Your task to perform on an android device: turn on showing notifications on the lock screen Image 0: 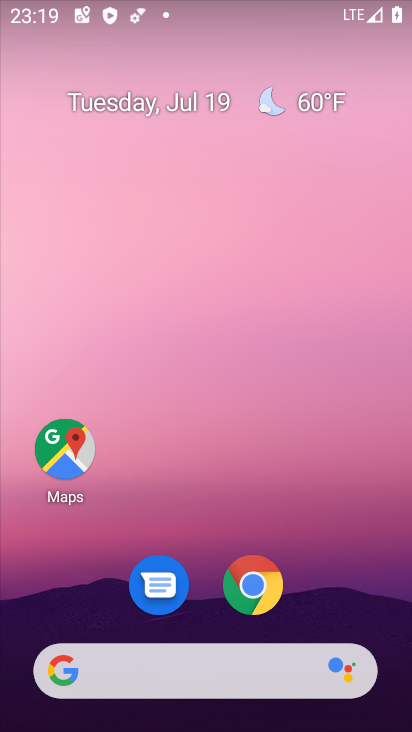
Step 0: drag from (215, 495) to (157, 0)
Your task to perform on an android device: turn on showing notifications on the lock screen Image 1: 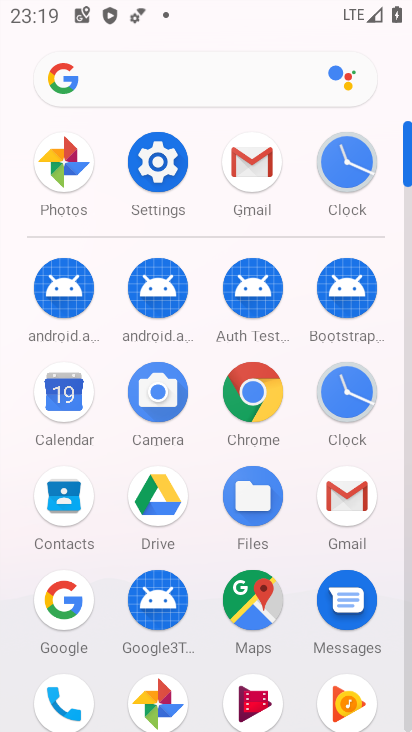
Step 1: click (163, 160)
Your task to perform on an android device: turn on showing notifications on the lock screen Image 2: 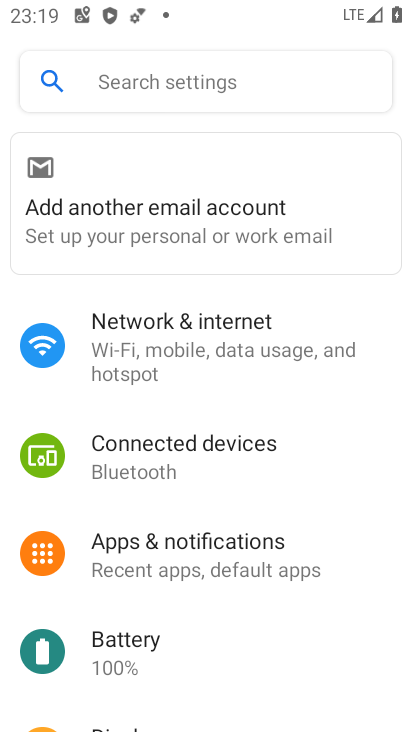
Step 2: click (225, 540)
Your task to perform on an android device: turn on showing notifications on the lock screen Image 3: 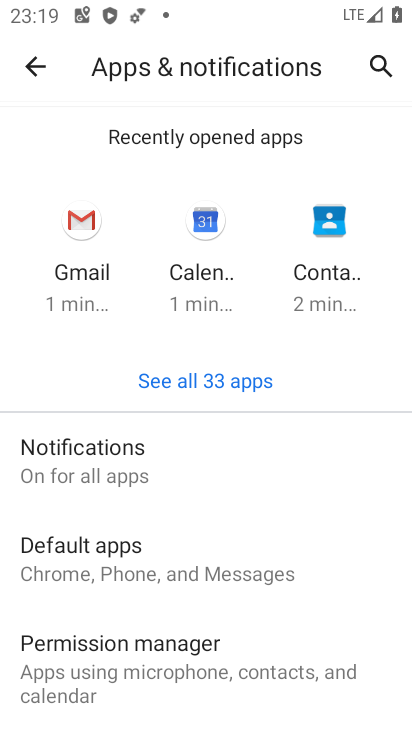
Step 3: drag from (259, 477) to (231, 161)
Your task to perform on an android device: turn on showing notifications on the lock screen Image 4: 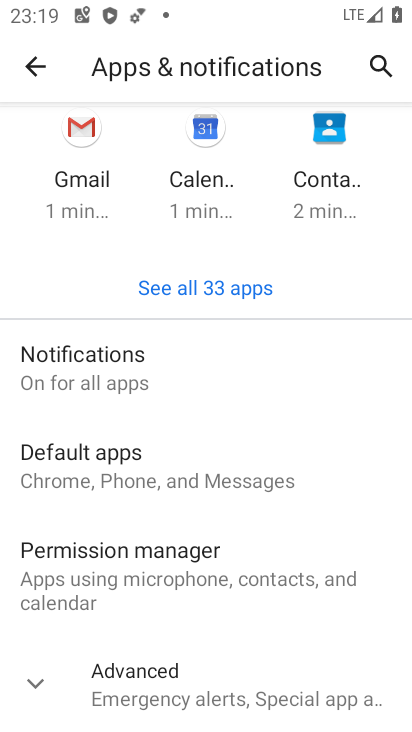
Step 4: click (138, 370)
Your task to perform on an android device: turn on showing notifications on the lock screen Image 5: 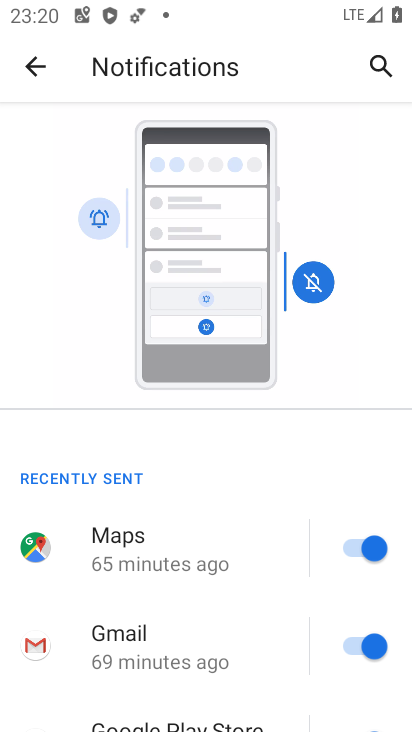
Step 5: drag from (231, 632) to (214, 56)
Your task to perform on an android device: turn on showing notifications on the lock screen Image 6: 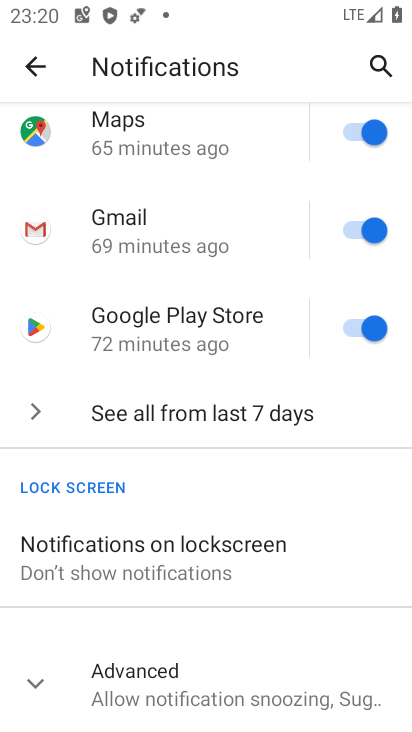
Step 6: click (214, 559)
Your task to perform on an android device: turn on showing notifications on the lock screen Image 7: 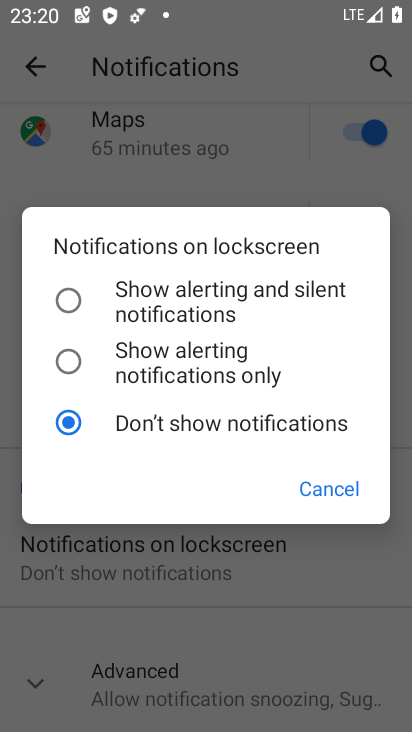
Step 7: click (69, 299)
Your task to perform on an android device: turn on showing notifications on the lock screen Image 8: 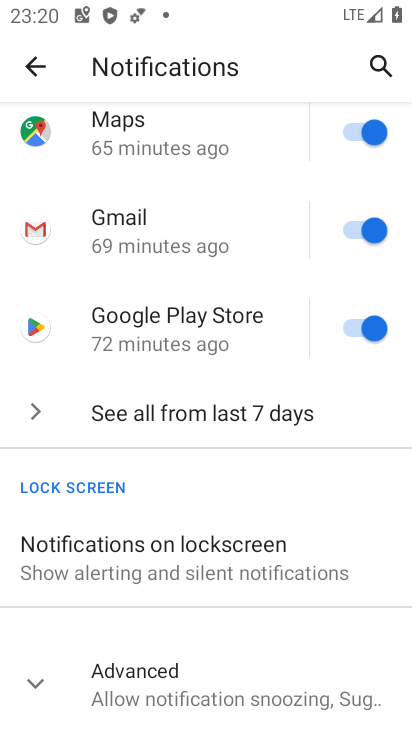
Step 8: task complete